Your task to perform on an android device: Go to Google Image 0: 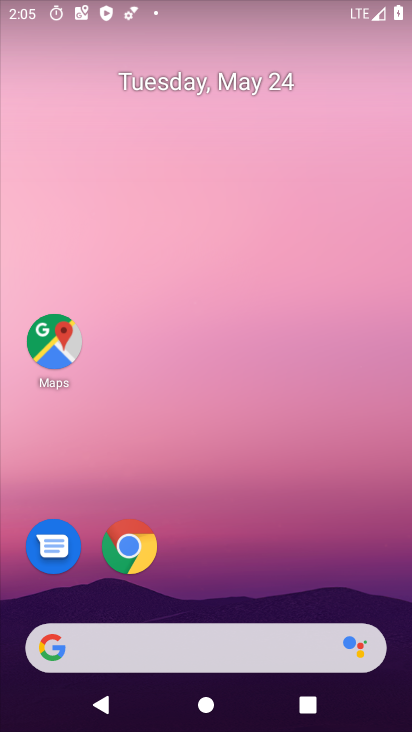
Step 0: drag from (244, 630) to (229, 174)
Your task to perform on an android device: Go to Google Image 1: 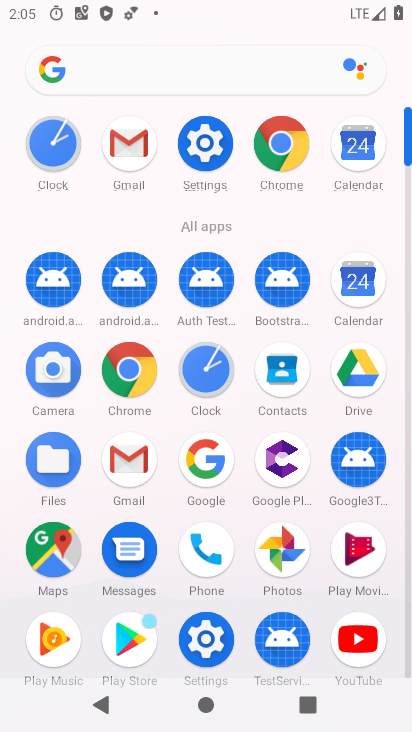
Step 1: click (210, 469)
Your task to perform on an android device: Go to Google Image 2: 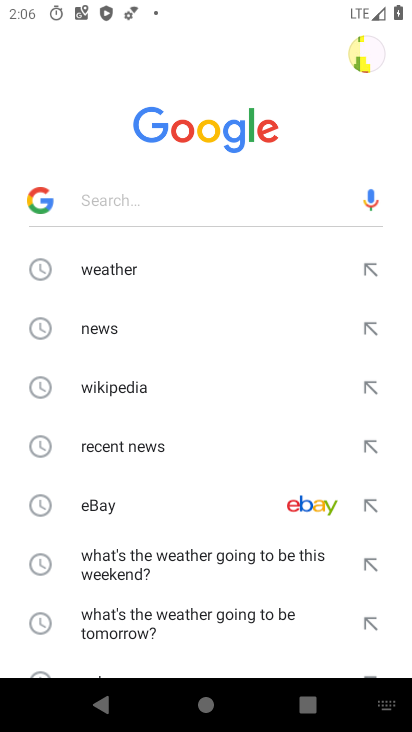
Step 2: task complete